Your task to perform on an android device: toggle show notifications on the lock screen Image 0: 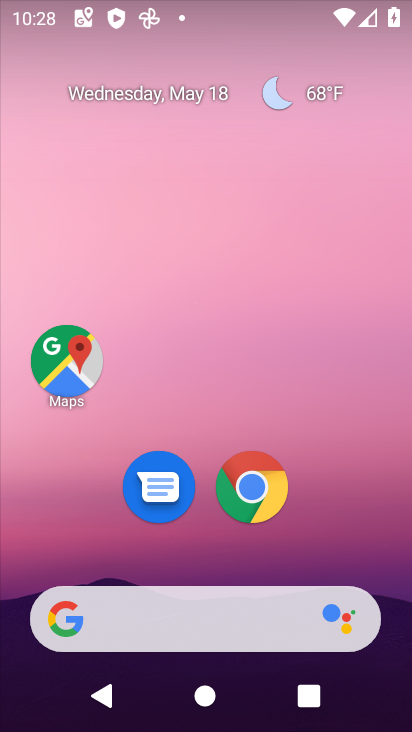
Step 0: drag from (347, 520) to (328, 131)
Your task to perform on an android device: toggle show notifications on the lock screen Image 1: 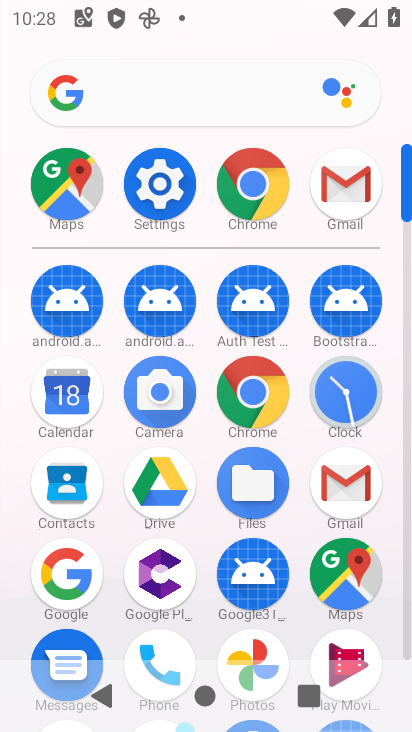
Step 1: click (160, 209)
Your task to perform on an android device: toggle show notifications on the lock screen Image 2: 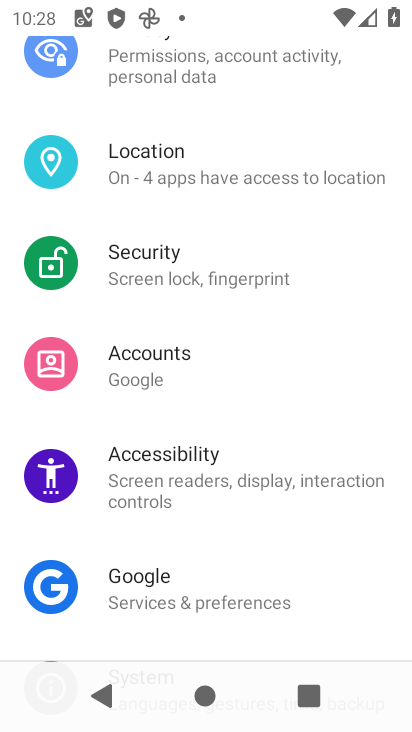
Step 2: drag from (254, 238) to (279, 495)
Your task to perform on an android device: toggle show notifications on the lock screen Image 3: 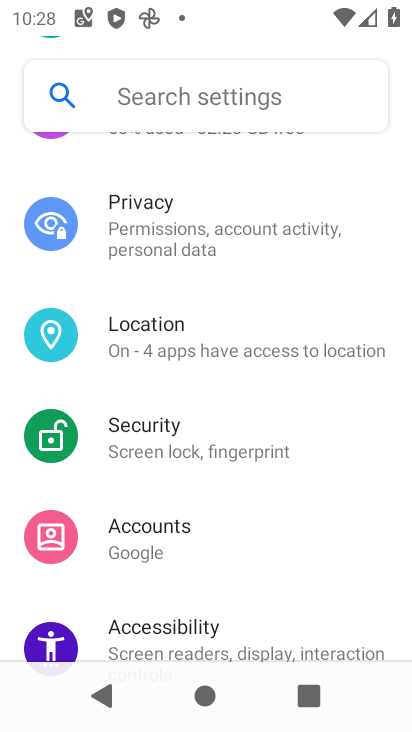
Step 3: drag from (236, 222) to (268, 550)
Your task to perform on an android device: toggle show notifications on the lock screen Image 4: 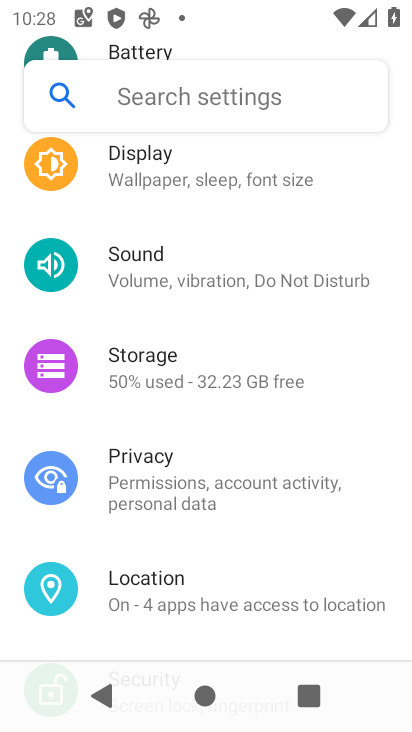
Step 4: drag from (253, 255) to (285, 620)
Your task to perform on an android device: toggle show notifications on the lock screen Image 5: 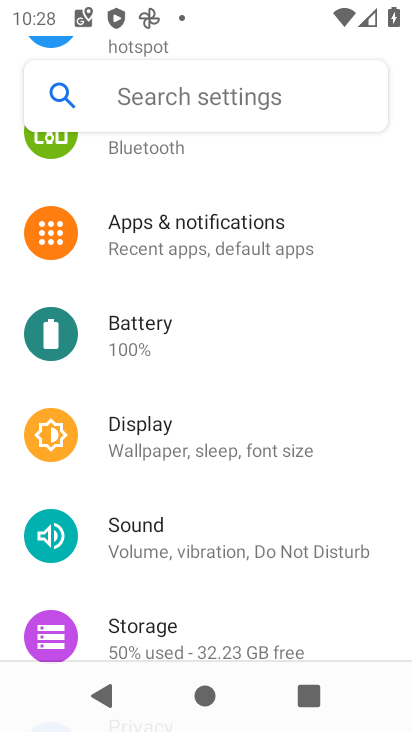
Step 5: click (218, 235)
Your task to perform on an android device: toggle show notifications on the lock screen Image 6: 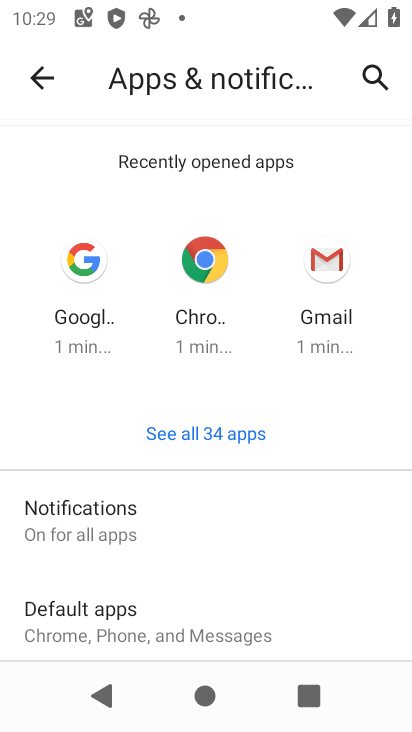
Step 6: click (140, 526)
Your task to perform on an android device: toggle show notifications on the lock screen Image 7: 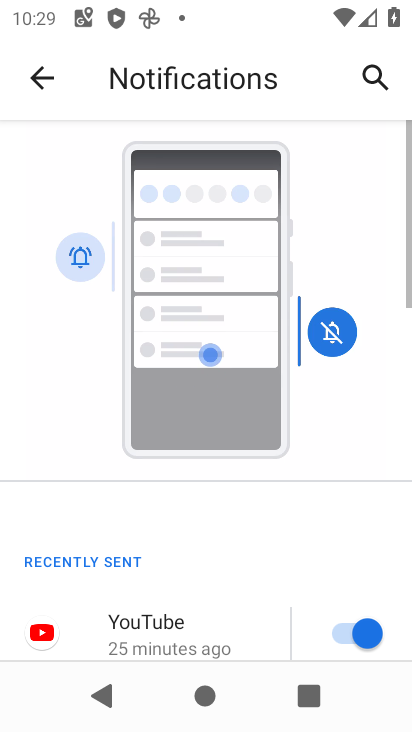
Step 7: drag from (232, 577) to (325, 243)
Your task to perform on an android device: toggle show notifications on the lock screen Image 8: 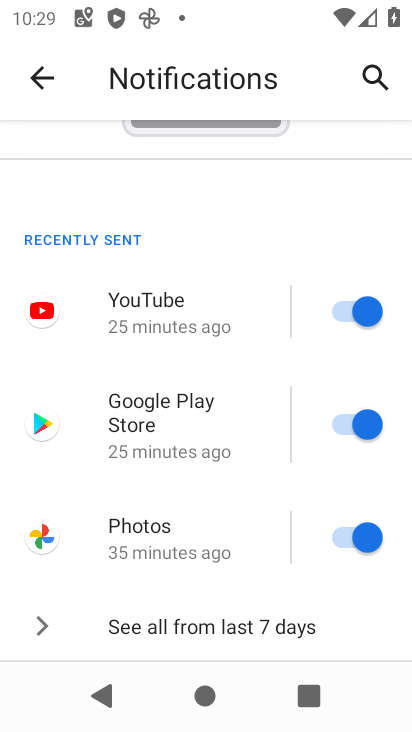
Step 8: drag from (224, 590) to (251, 328)
Your task to perform on an android device: toggle show notifications on the lock screen Image 9: 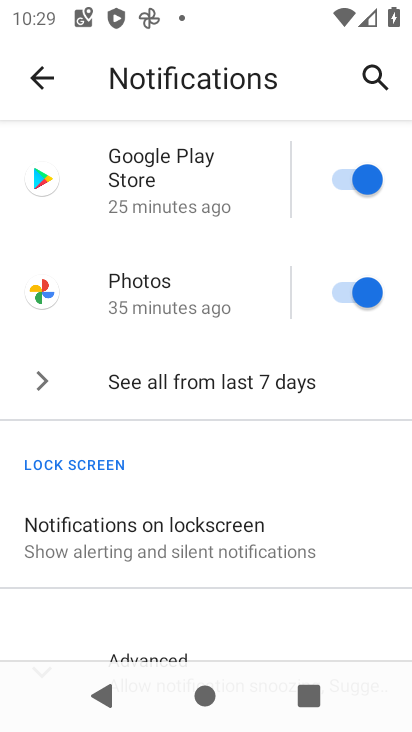
Step 9: click (210, 529)
Your task to perform on an android device: toggle show notifications on the lock screen Image 10: 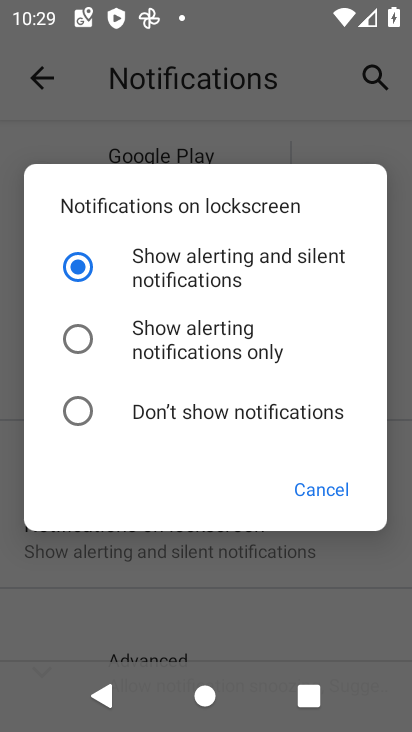
Step 10: click (147, 415)
Your task to perform on an android device: toggle show notifications on the lock screen Image 11: 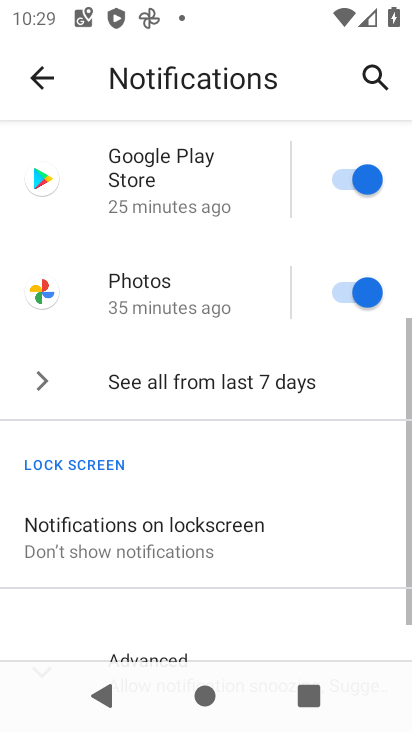
Step 11: task complete